Your task to perform on an android device: visit the assistant section in the google photos Image 0: 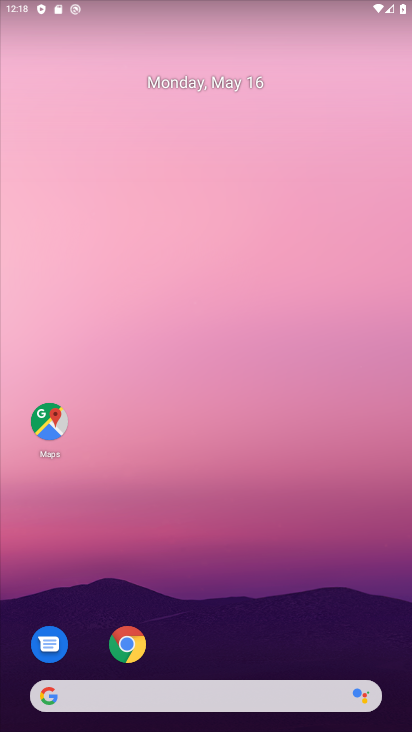
Step 0: drag from (227, 696) to (260, 9)
Your task to perform on an android device: visit the assistant section in the google photos Image 1: 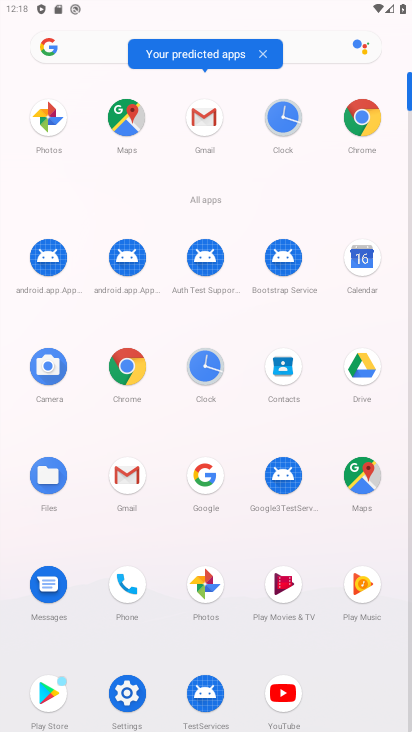
Step 1: click (207, 576)
Your task to perform on an android device: visit the assistant section in the google photos Image 2: 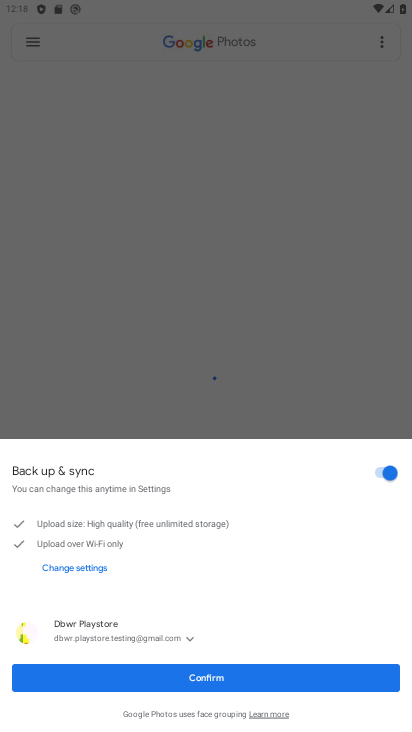
Step 2: click (220, 690)
Your task to perform on an android device: visit the assistant section in the google photos Image 3: 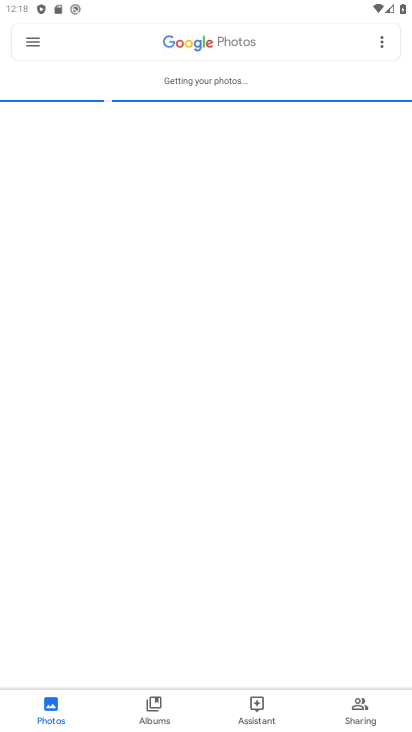
Step 3: click (243, 706)
Your task to perform on an android device: visit the assistant section in the google photos Image 4: 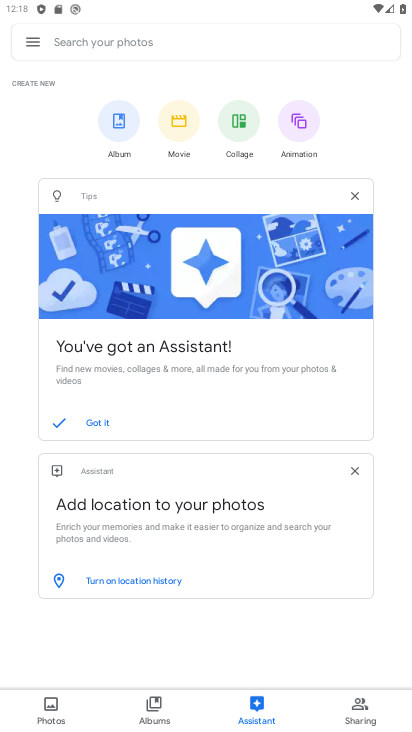
Step 4: task complete